Your task to perform on an android device: Open eBay Image 0: 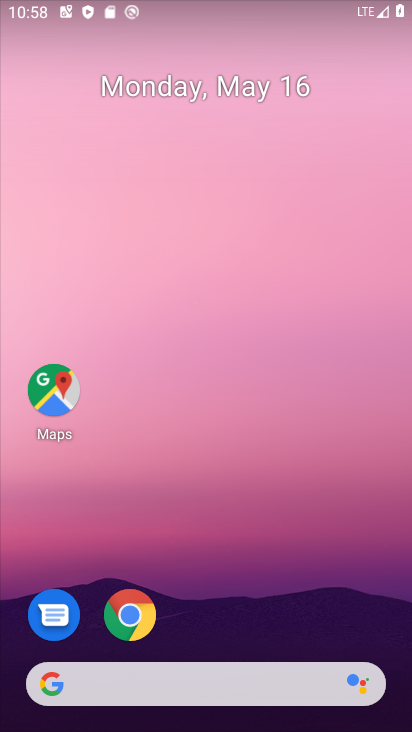
Step 0: drag from (227, 608) to (264, 268)
Your task to perform on an android device: Open eBay Image 1: 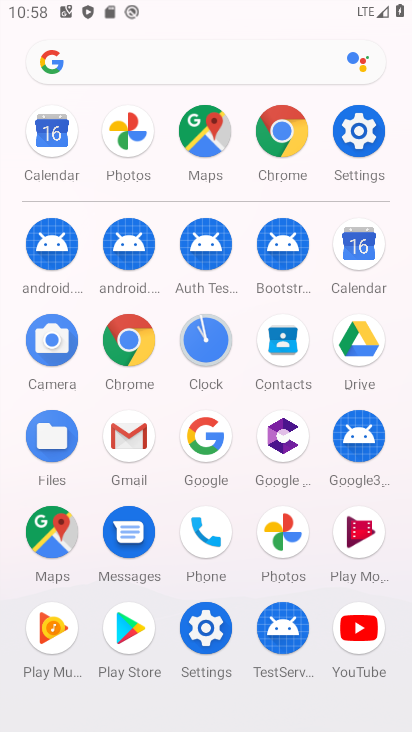
Step 1: click (133, 374)
Your task to perform on an android device: Open eBay Image 2: 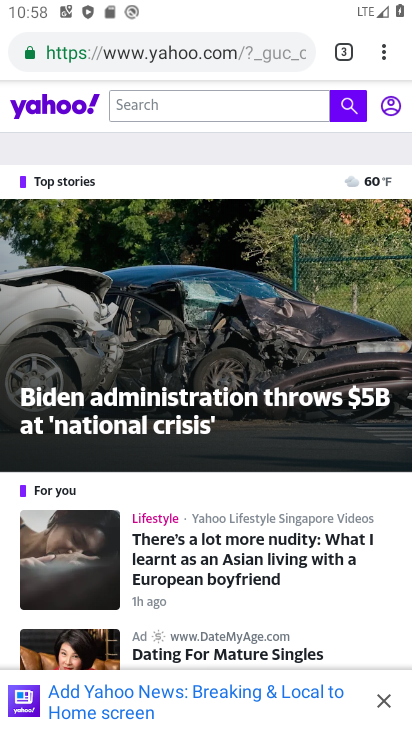
Step 2: click (202, 53)
Your task to perform on an android device: Open eBay Image 3: 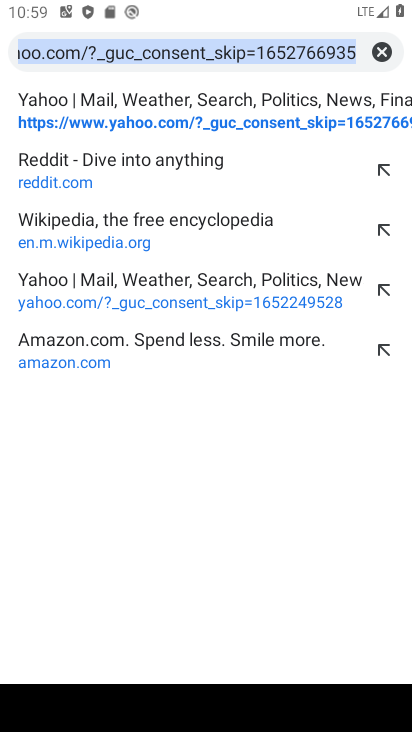
Step 3: type "ebay"
Your task to perform on an android device: Open eBay Image 4: 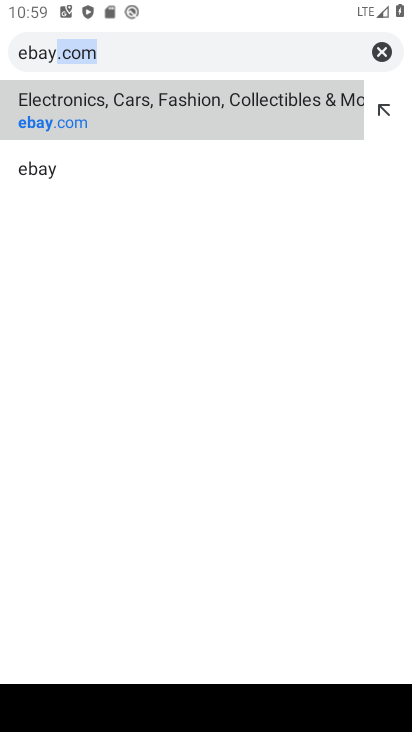
Step 4: click (203, 115)
Your task to perform on an android device: Open eBay Image 5: 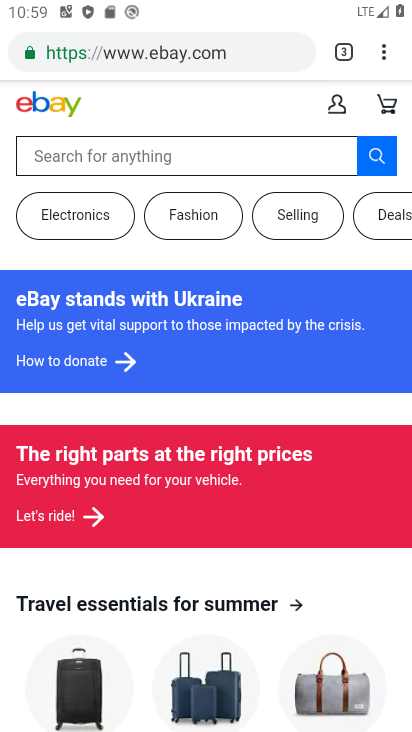
Step 5: task complete